Your task to perform on an android device: Go to accessibility settings Image 0: 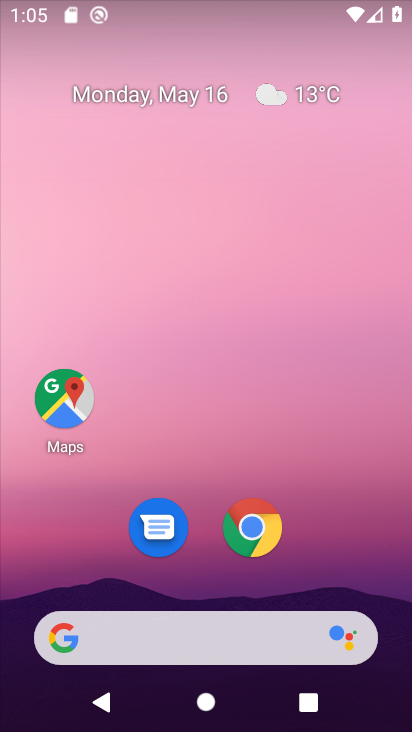
Step 0: drag from (341, 548) to (339, 119)
Your task to perform on an android device: Go to accessibility settings Image 1: 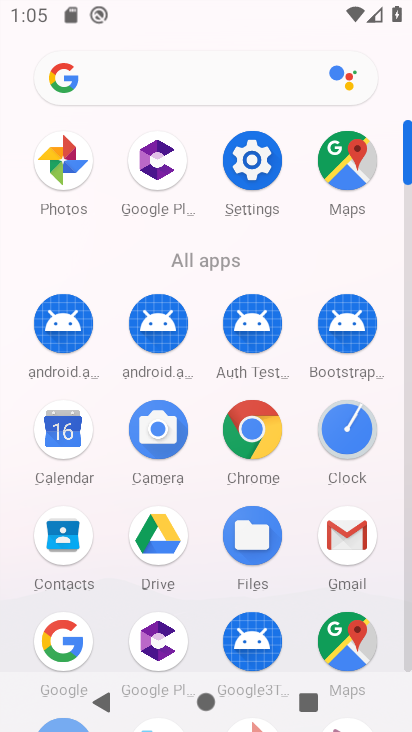
Step 1: click (261, 169)
Your task to perform on an android device: Go to accessibility settings Image 2: 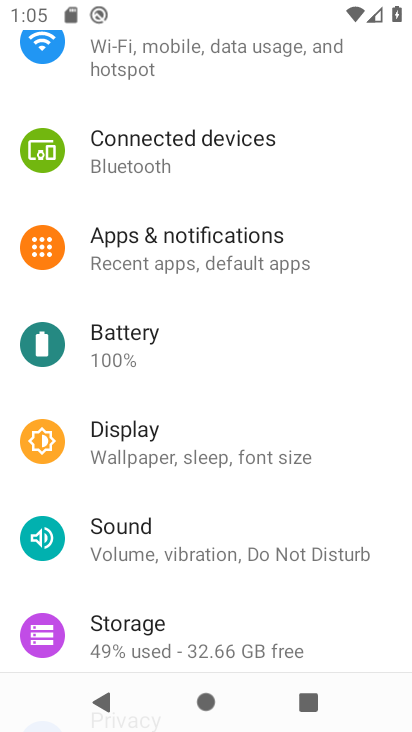
Step 2: drag from (244, 572) to (281, 13)
Your task to perform on an android device: Go to accessibility settings Image 3: 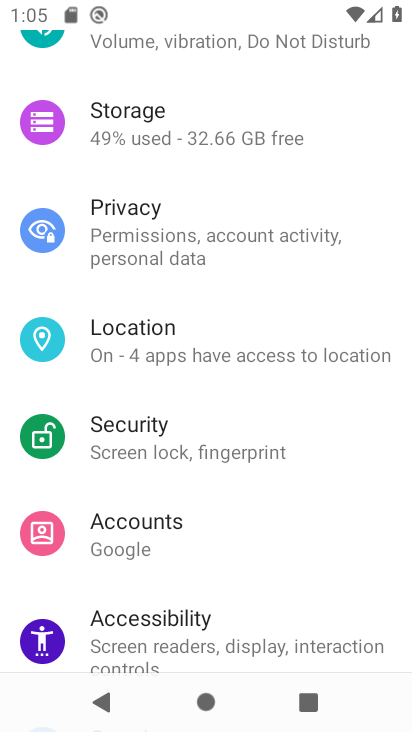
Step 3: click (196, 624)
Your task to perform on an android device: Go to accessibility settings Image 4: 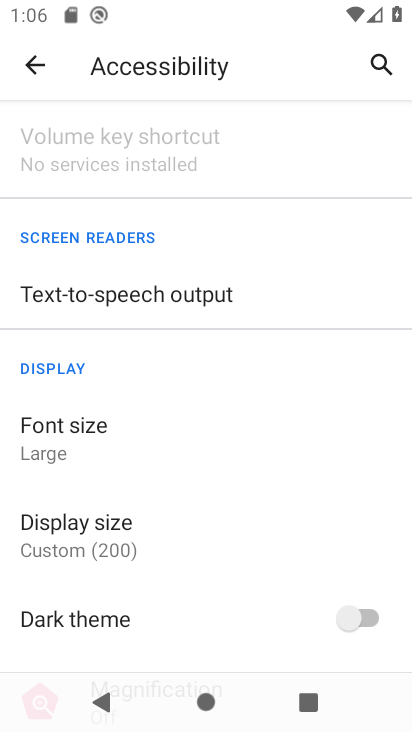
Step 4: task complete